Your task to perform on an android device: Show me recent news Image 0: 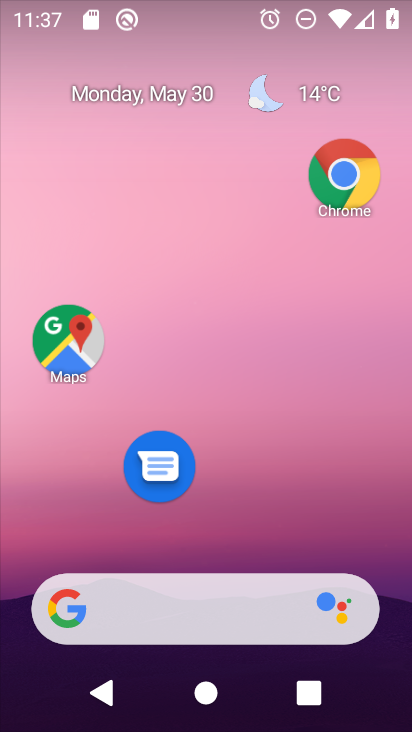
Step 0: click (179, 595)
Your task to perform on an android device: Show me recent news Image 1: 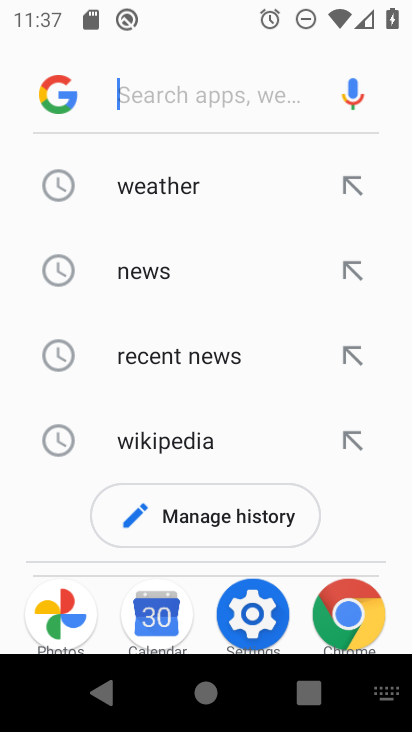
Step 1: click (152, 359)
Your task to perform on an android device: Show me recent news Image 2: 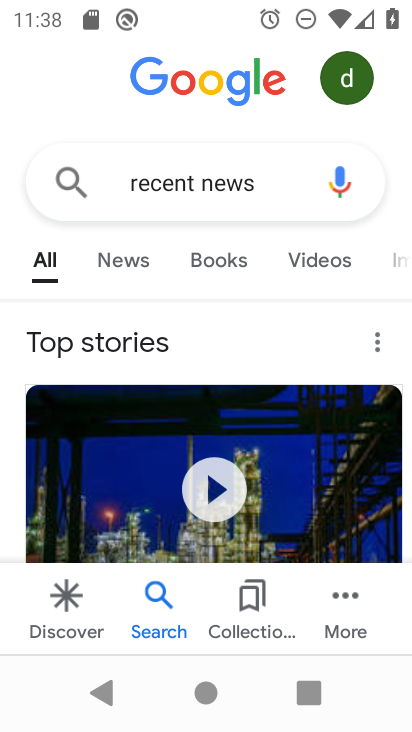
Step 2: task complete